Your task to perform on an android device: find snoozed emails in the gmail app Image 0: 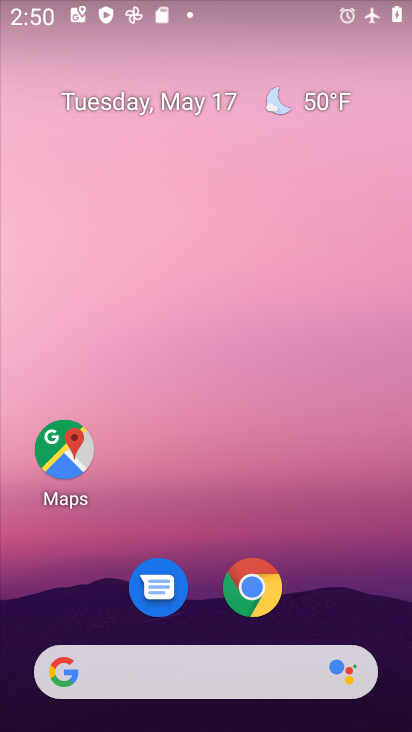
Step 0: drag from (325, 591) to (335, 162)
Your task to perform on an android device: find snoozed emails in the gmail app Image 1: 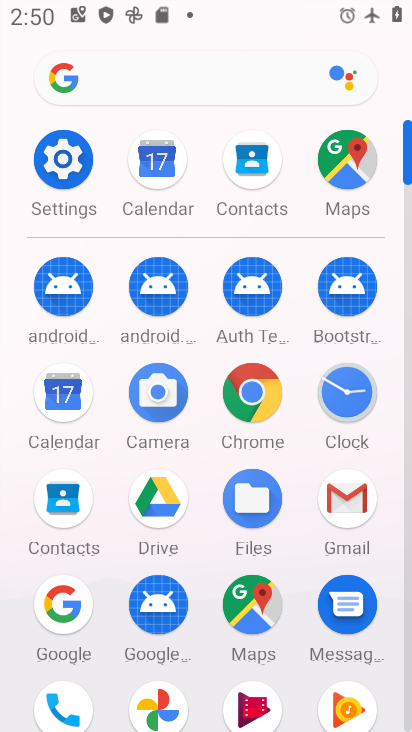
Step 1: click (339, 500)
Your task to perform on an android device: find snoozed emails in the gmail app Image 2: 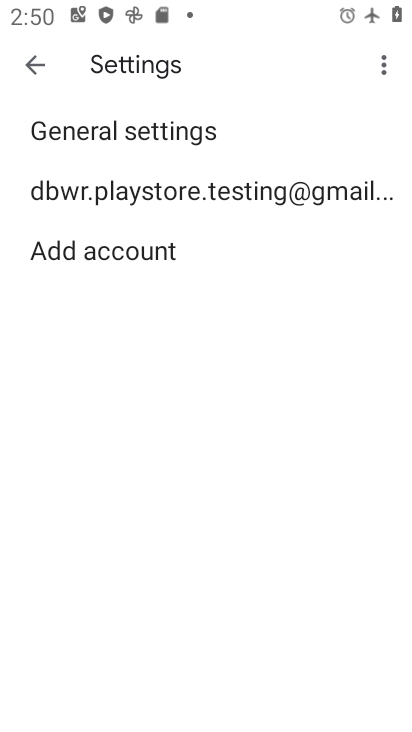
Step 2: click (24, 73)
Your task to perform on an android device: find snoozed emails in the gmail app Image 3: 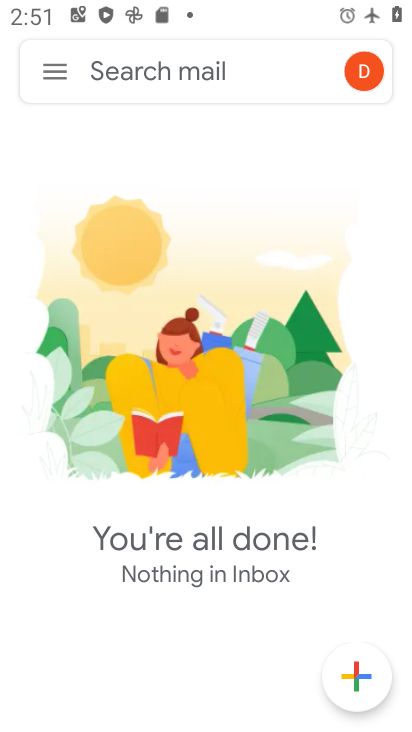
Step 3: click (48, 77)
Your task to perform on an android device: find snoozed emails in the gmail app Image 4: 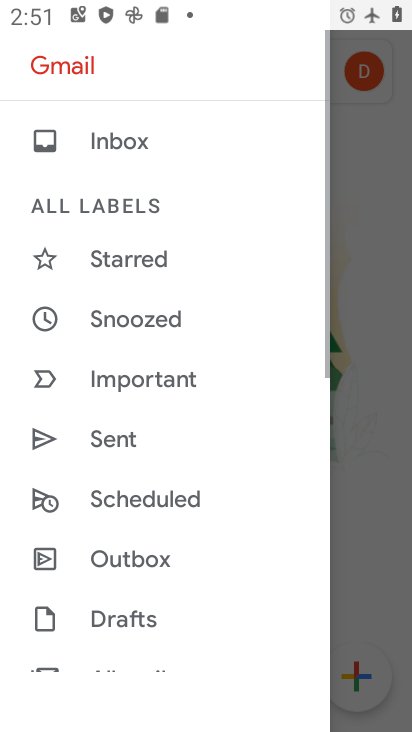
Step 4: drag from (102, 591) to (185, 315)
Your task to perform on an android device: find snoozed emails in the gmail app Image 5: 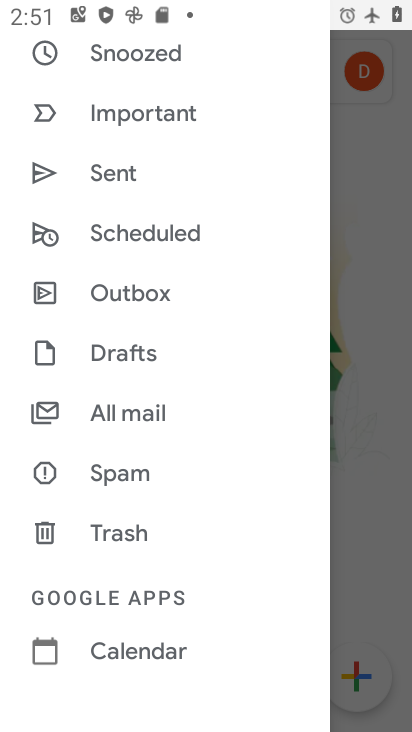
Step 5: drag from (170, 573) to (259, 254)
Your task to perform on an android device: find snoozed emails in the gmail app Image 6: 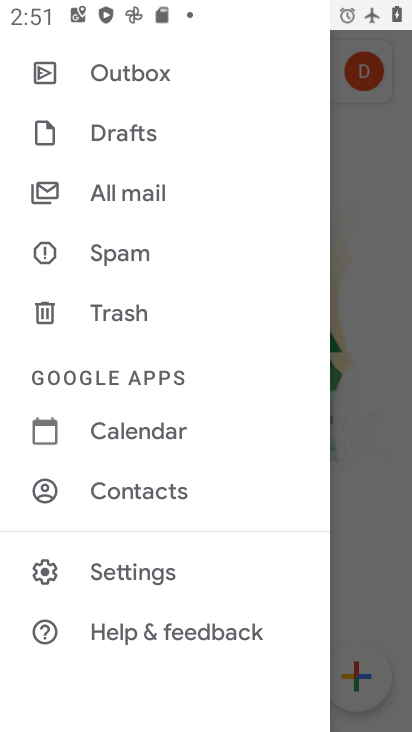
Step 6: drag from (161, 136) to (161, 412)
Your task to perform on an android device: find snoozed emails in the gmail app Image 7: 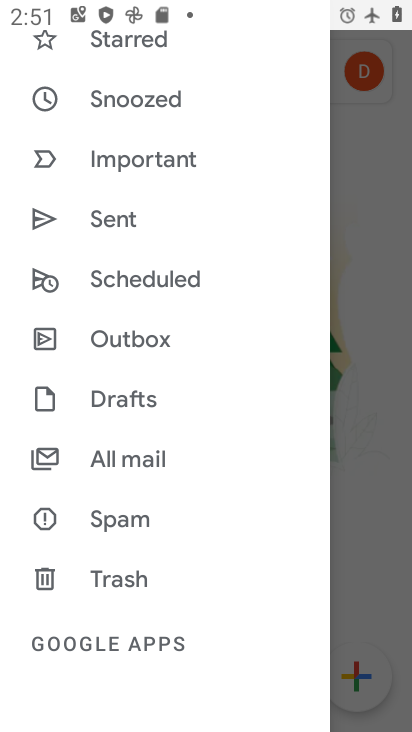
Step 7: click (164, 95)
Your task to perform on an android device: find snoozed emails in the gmail app Image 8: 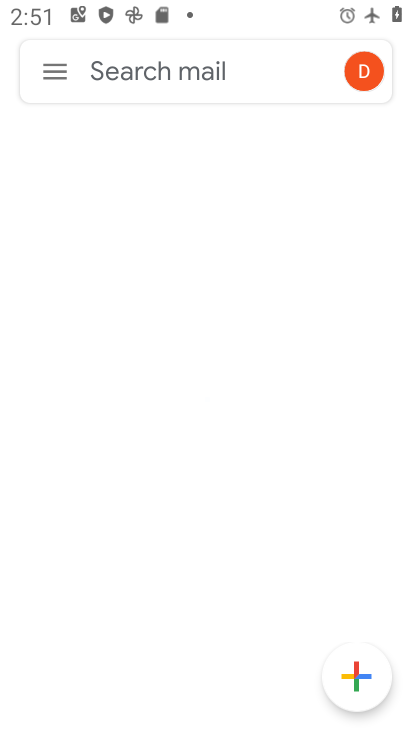
Step 8: task complete